Your task to perform on an android device: Go to accessibility settings Image 0: 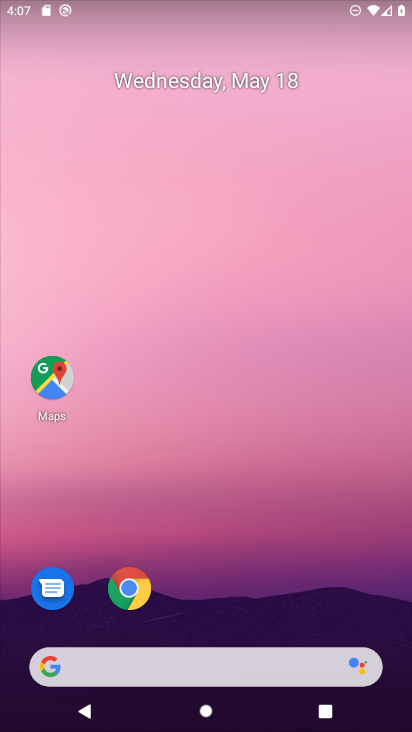
Step 0: drag from (266, 595) to (262, 87)
Your task to perform on an android device: Go to accessibility settings Image 1: 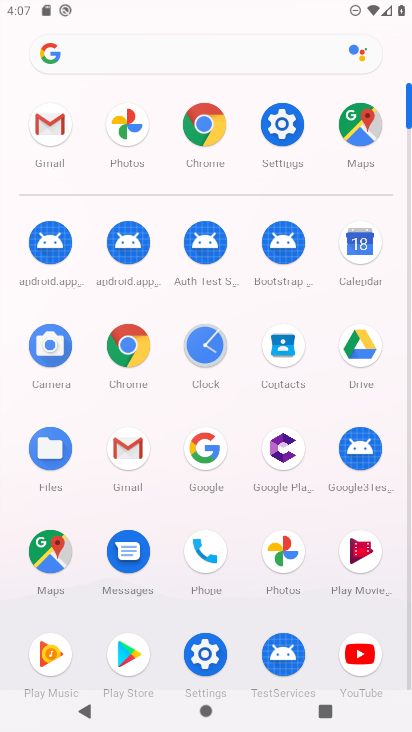
Step 1: click (292, 144)
Your task to perform on an android device: Go to accessibility settings Image 2: 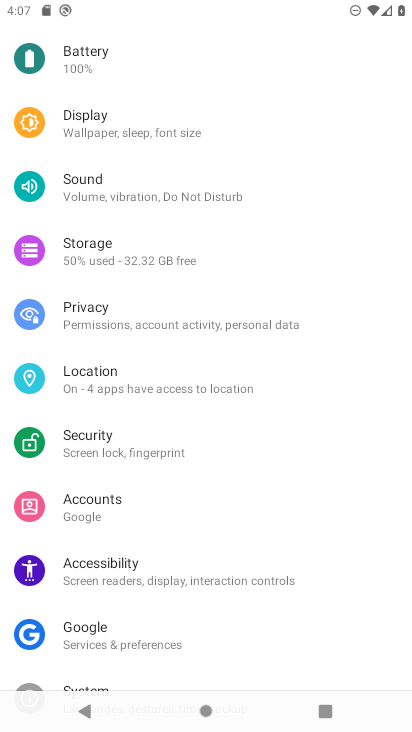
Step 2: click (172, 599)
Your task to perform on an android device: Go to accessibility settings Image 3: 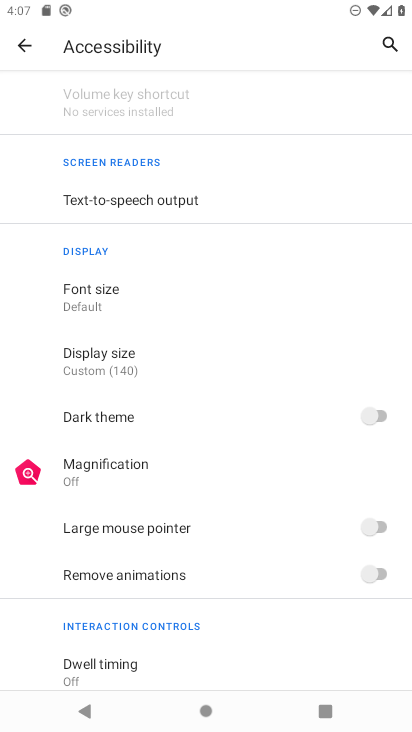
Step 3: task complete